Your task to perform on an android device: search for starred emails in the gmail app Image 0: 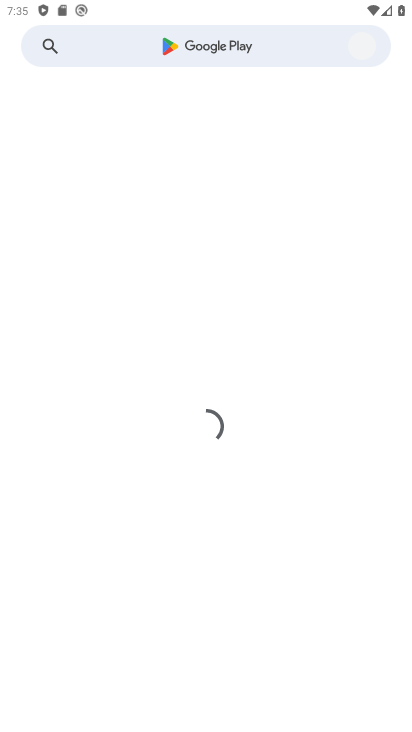
Step 0: press home button
Your task to perform on an android device: search for starred emails in the gmail app Image 1: 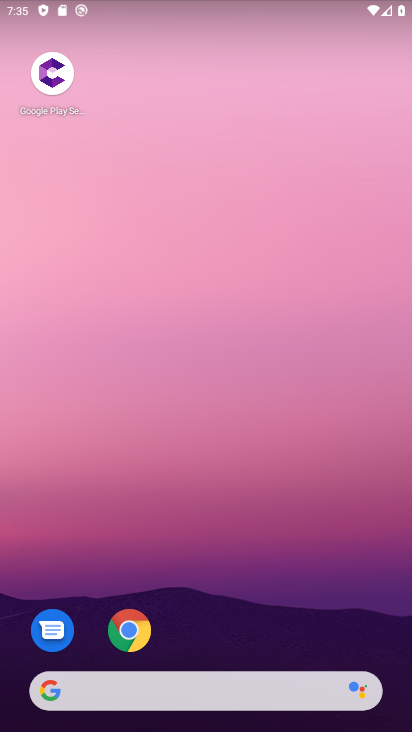
Step 1: drag from (192, 693) to (287, 251)
Your task to perform on an android device: search for starred emails in the gmail app Image 2: 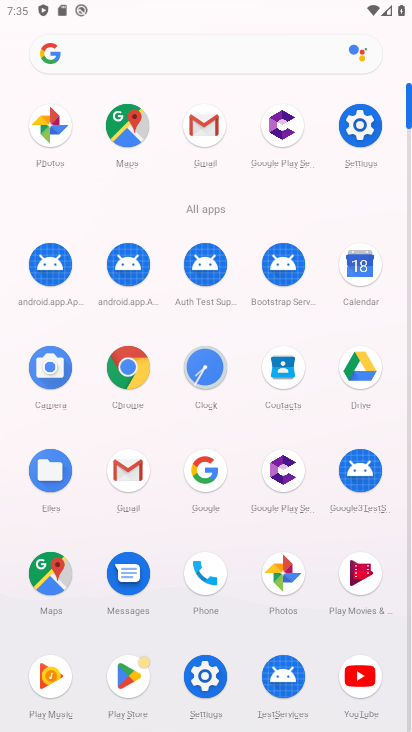
Step 2: click (121, 481)
Your task to perform on an android device: search for starred emails in the gmail app Image 3: 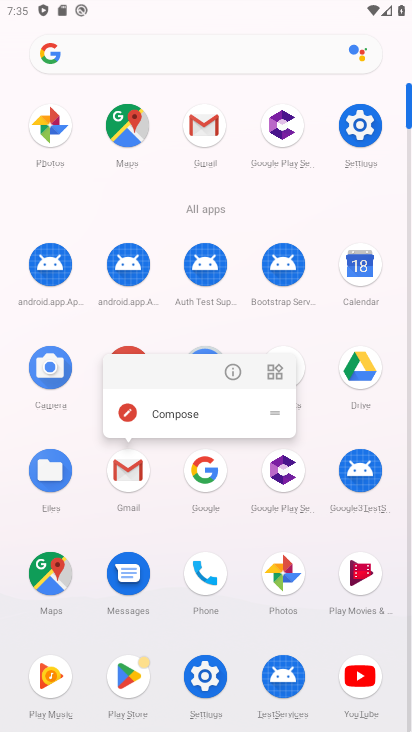
Step 3: click (121, 481)
Your task to perform on an android device: search for starred emails in the gmail app Image 4: 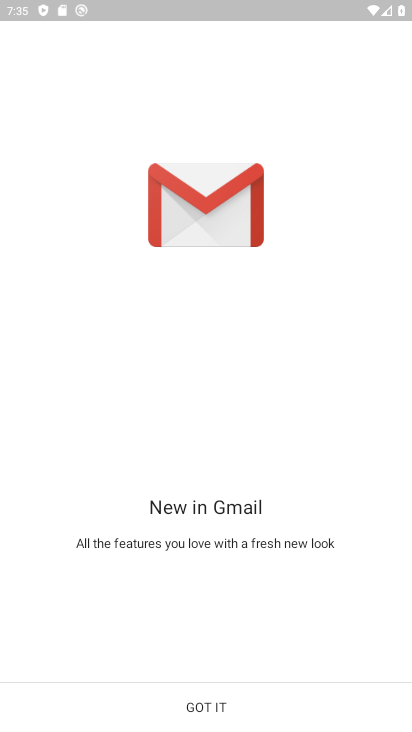
Step 4: click (230, 696)
Your task to perform on an android device: search for starred emails in the gmail app Image 5: 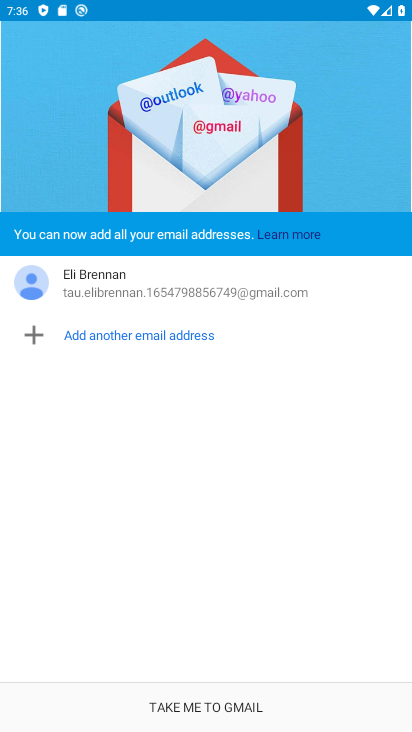
Step 5: click (230, 696)
Your task to perform on an android device: search for starred emails in the gmail app Image 6: 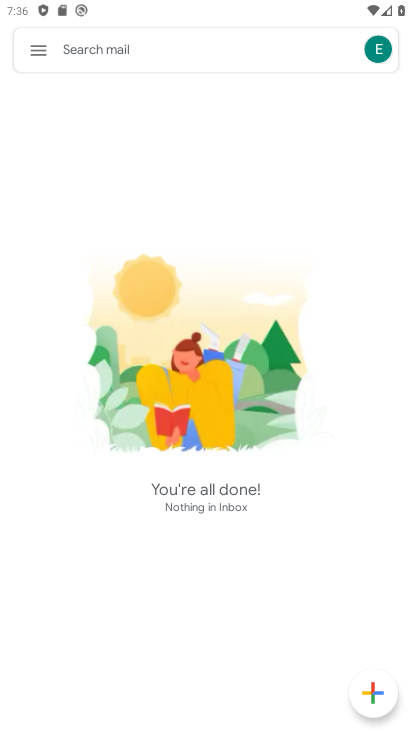
Step 6: click (230, 696)
Your task to perform on an android device: search for starred emails in the gmail app Image 7: 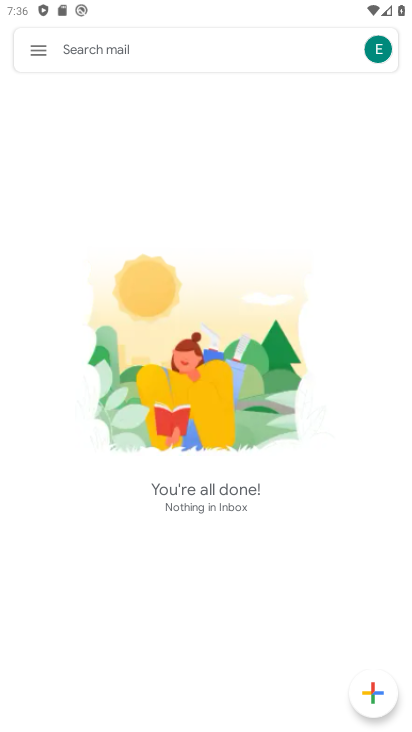
Step 7: click (42, 53)
Your task to perform on an android device: search for starred emails in the gmail app Image 8: 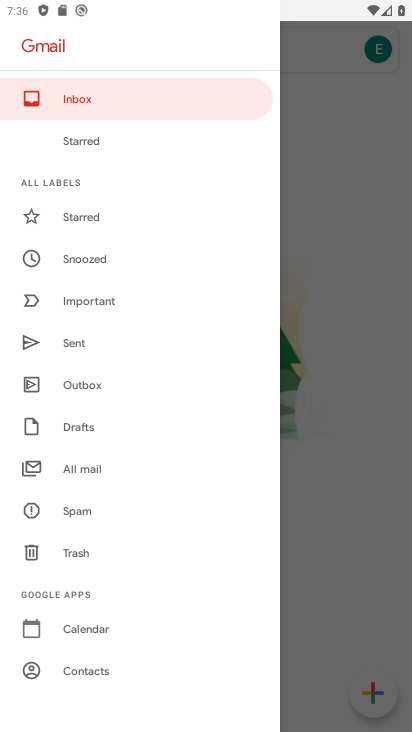
Step 8: click (65, 215)
Your task to perform on an android device: search for starred emails in the gmail app Image 9: 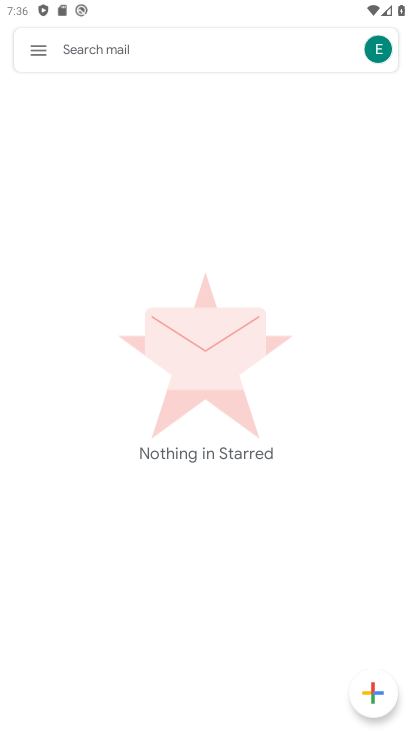
Step 9: task complete